Your task to perform on an android device: Open battery settings Image 0: 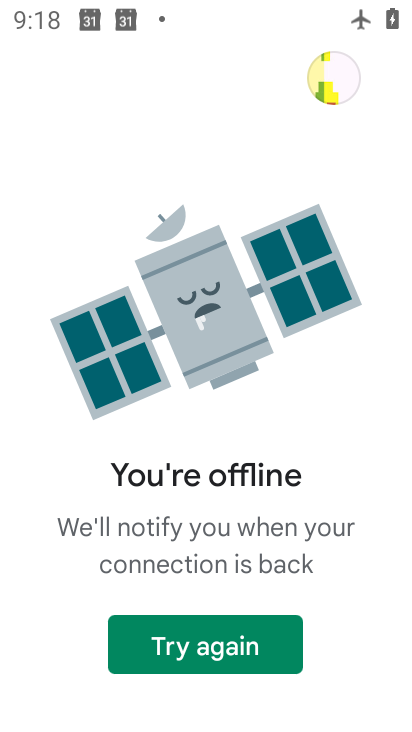
Step 0: press home button
Your task to perform on an android device: Open battery settings Image 1: 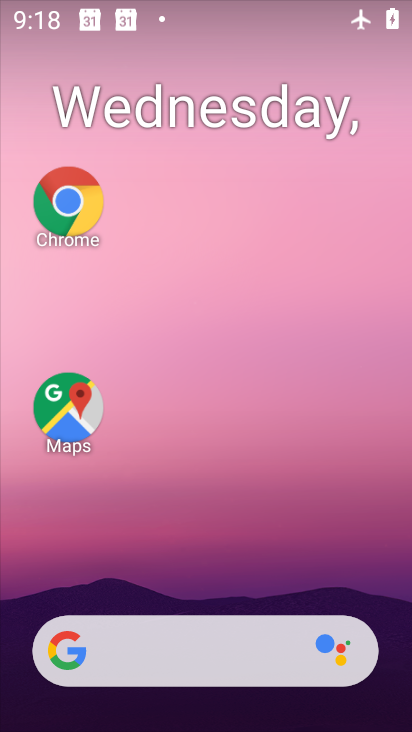
Step 1: drag from (189, 594) to (306, 4)
Your task to perform on an android device: Open battery settings Image 2: 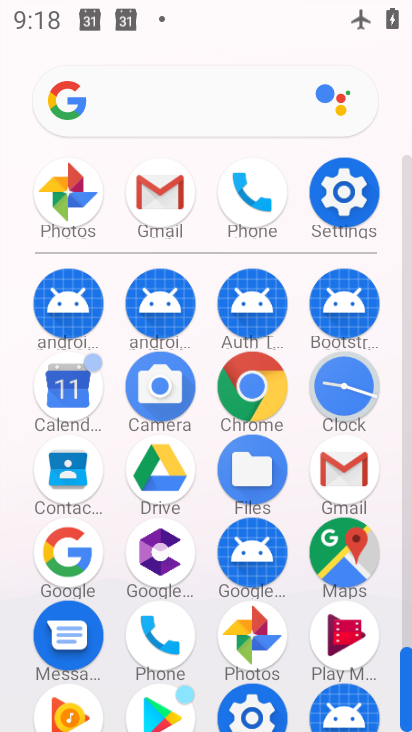
Step 2: click (325, 172)
Your task to perform on an android device: Open battery settings Image 3: 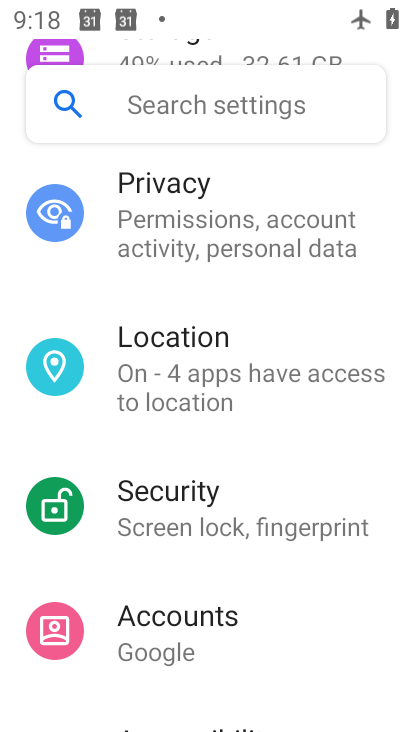
Step 3: drag from (325, 172) to (299, 467)
Your task to perform on an android device: Open battery settings Image 4: 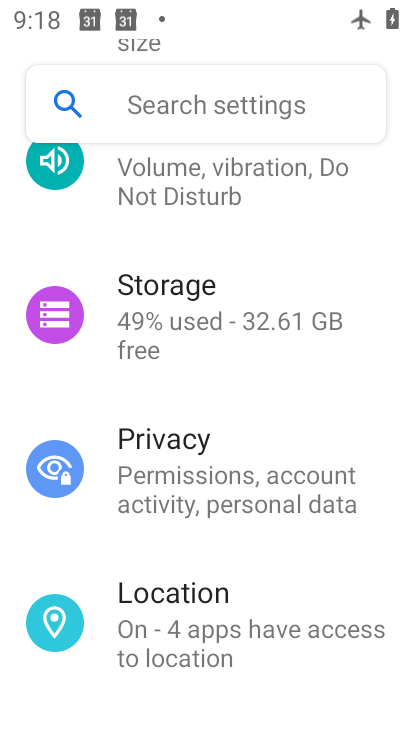
Step 4: drag from (211, 313) to (213, 531)
Your task to perform on an android device: Open battery settings Image 5: 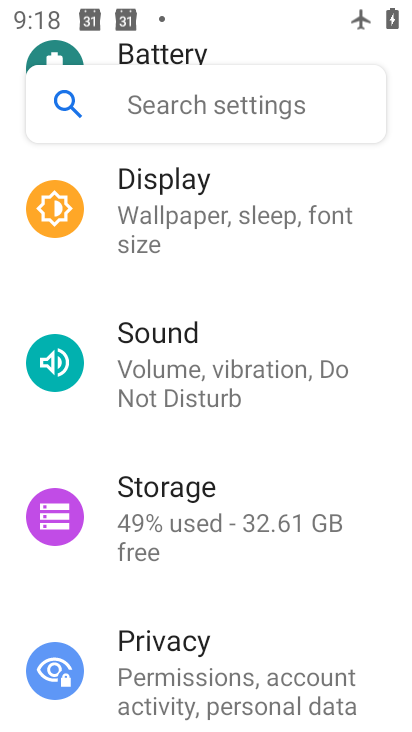
Step 5: drag from (178, 295) to (177, 535)
Your task to perform on an android device: Open battery settings Image 6: 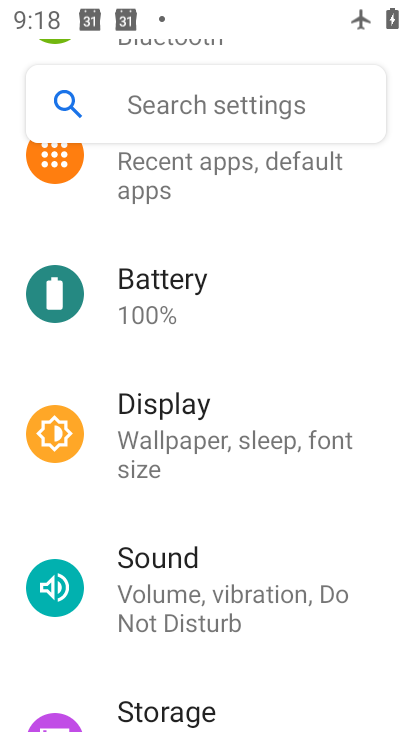
Step 6: click (199, 272)
Your task to perform on an android device: Open battery settings Image 7: 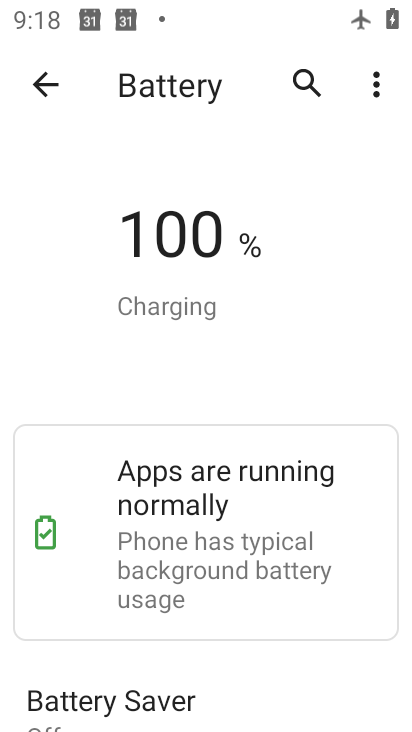
Step 7: task complete